Your task to perform on an android device: See recent photos Image 0: 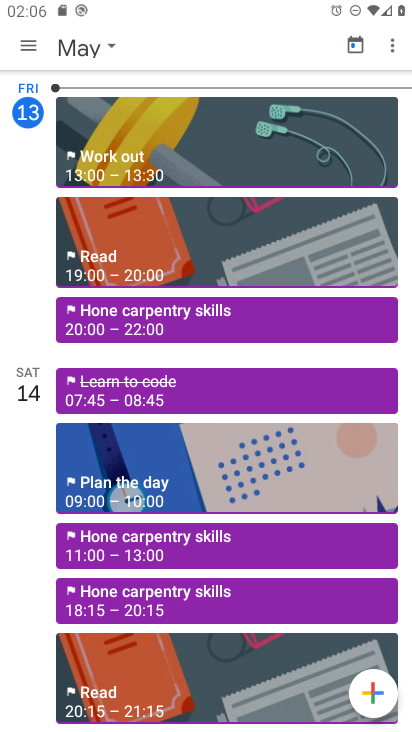
Step 0: press home button
Your task to perform on an android device: See recent photos Image 1: 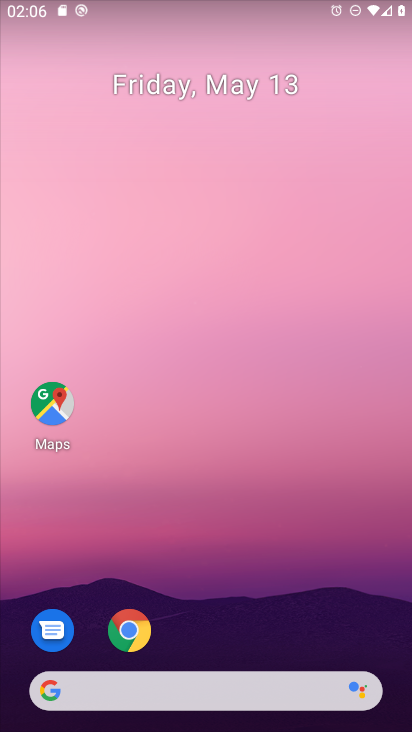
Step 1: drag from (310, 708) to (281, 231)
Your task to perform on an android device: See recent photos Image 2: 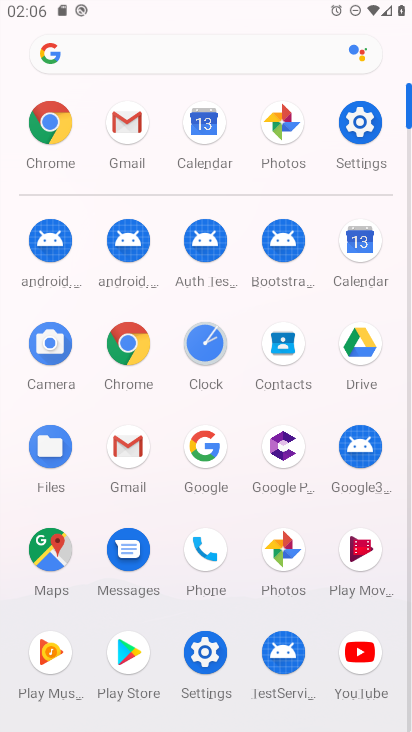
Step 2: click (276, 555)
Your task to perform on an android device: See recent photos Image 3: 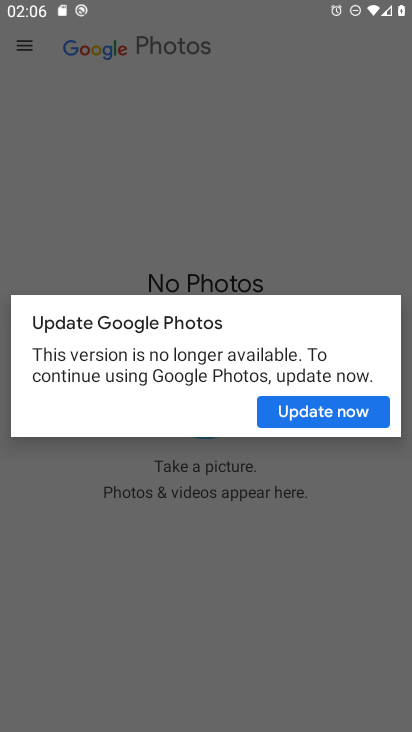
Step 3: task complete